Your task to perform on an android device: delete location history Image 0: 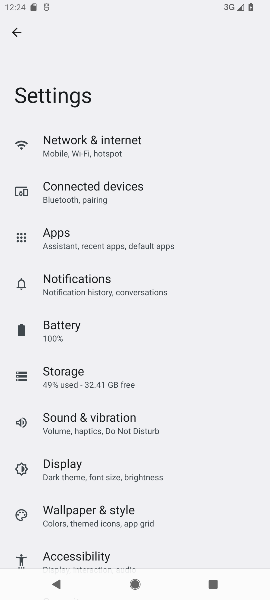
Step 0: drag from (86, 552) to (99, 153)
Your task to perform on an android device: delete location history Image 1: 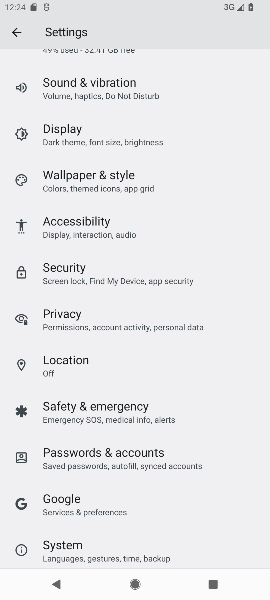
Step 1: click (67, 353)
Your task to perform on an android device: delete location history Image 2: 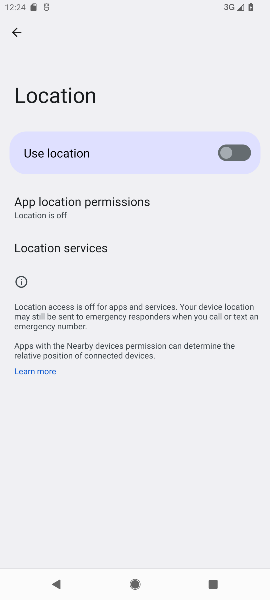
Step 2: click (50, 244)
Your task to perform on an android device: delete location history Image 3: 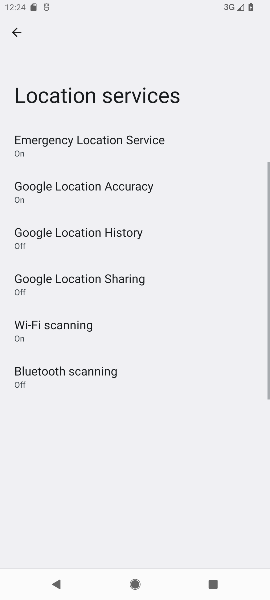
Step 3: click (82, 231)
Your task to perform on an android device: delete location history Image 4: 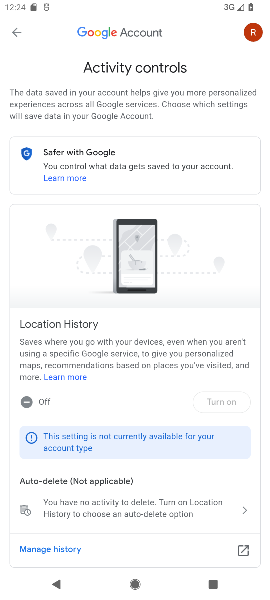
Step 4: click (66, 514)
Your task to perform on an android device: delete location history Image 5: 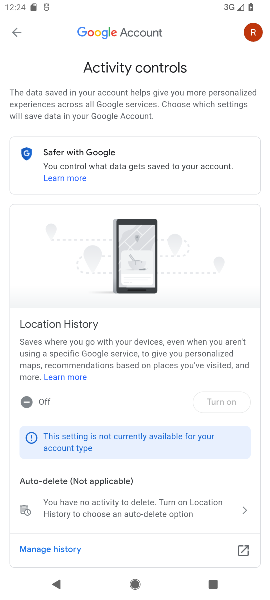
Step 5: click (61, 503)
Your task to perform on an android device: delete location history Image 6: 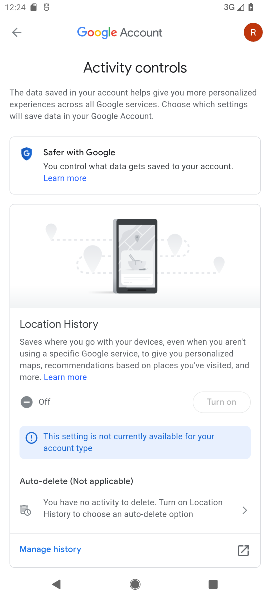
Step 6: task complete